Your task to perform on an android device: Add "macbook pro" to the cart on costco, then select checkout. Image 0: 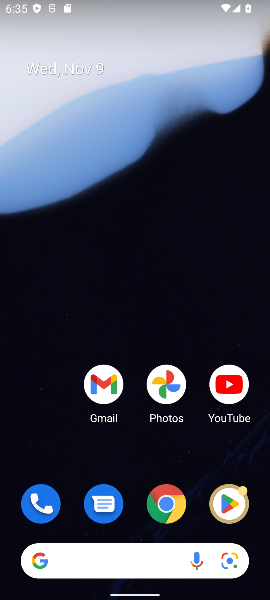
Step 0: click (177, 510)
Your task to perform on an android device: Add "macbook pro" to the cart on costco, then select checkout. Image 1: 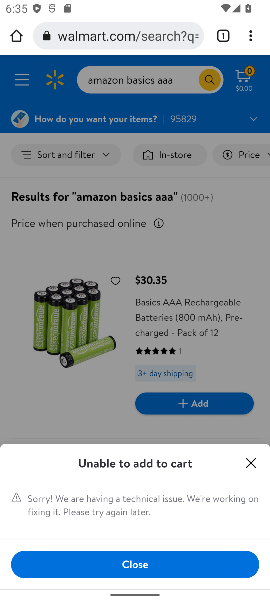
Step 1: click (128, 36)
Your task to perform on an android device: Add "macbook pro" to the cart on costco, then select checkout. Image 2: 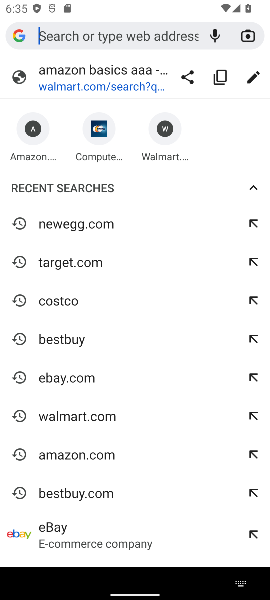
Step 2: type "costco"
Your task to perform on an android device: Add "macbook pro" to the cart on costco, then select checkout. Image 3: 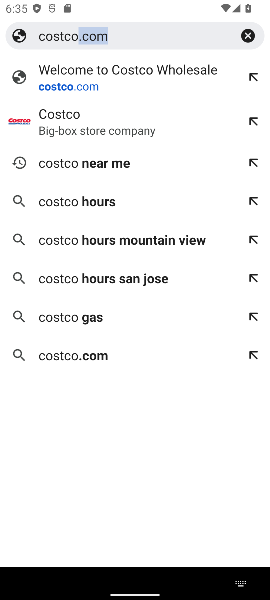
Step 3: click (144, 67)
Your task to perform on an android device: Add "macbook pro" to the cart on costco, then select checkout. Image 4: 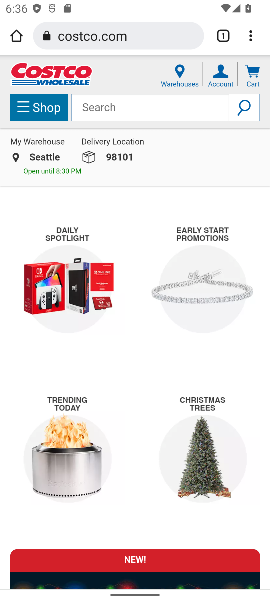
Step 4: click (158, 107)
Your task to perform on an android device: Add "macbook pro" to the cart on costco, then select checkout. Image 5: 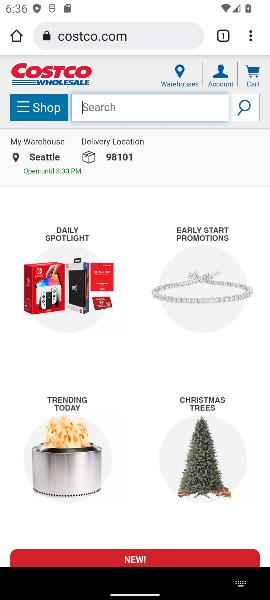
Step 5: type "macbook pro"
Your task to perform on an android device: Add "macbook pro" to the cart on costco, then select checkout. Image 6: 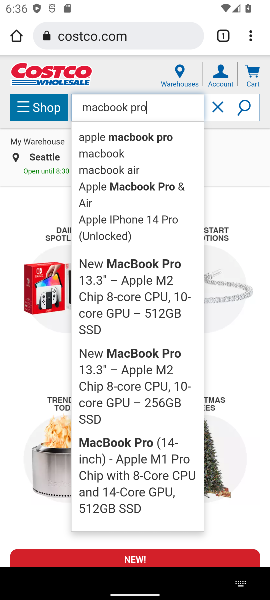
Step 6: press enter
Your task to perform on an android device: Add "macbook pro" to the cart on costco, then select checkout. Image 7: 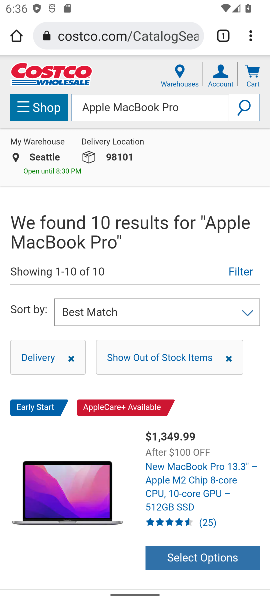
Step 7: click (187, 495)
Your task to perform on an android device: Add "macbook pro" to the cart on costco, then select checkout. Image 8: 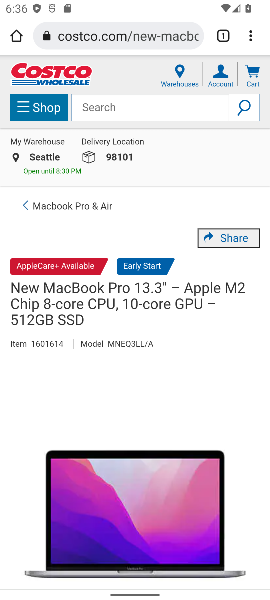
Step 8: drag from (149, 440) to (81, 148)
Your task to perform on an android device: Add "macbook pro" to the cart on costco, then select checkout. Image 9: 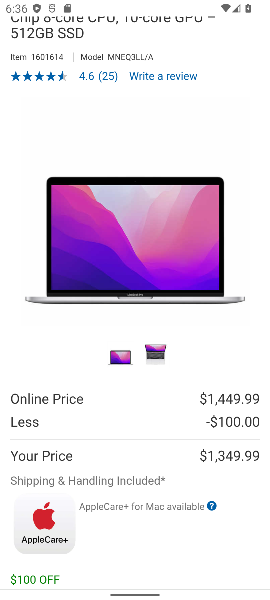
Step 9: drag from (133, 540) to (67, 332)
Your task to perform on an android device: Add "macbook pro" to the cart on costco, then select checkout. Image 10: 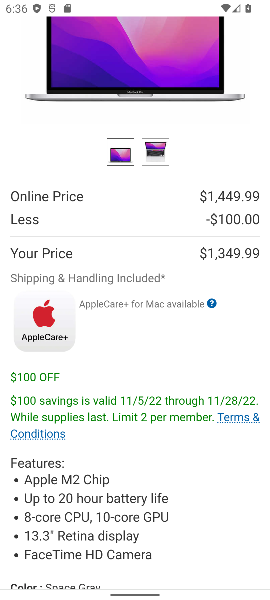
Step 10: drag from (138, 458) to (135, 5)
Your task to perform on an android device: Add "macbook pro" to the cart on costco, then select checkout. Image 11: 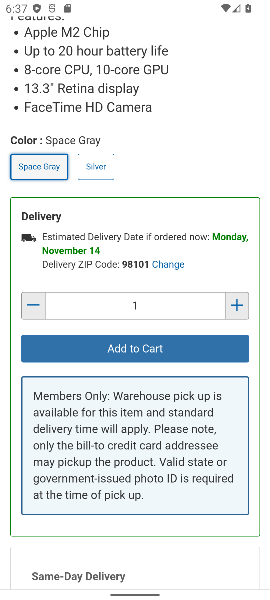
Step 11: click (135, 359)
Your task to perform on an android device: Add "macbook pro" to the cart on costco, then select checkout. Image 12: 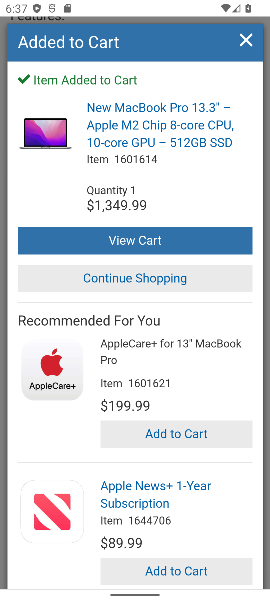
Step 12: click (126, 238)
Your task to perform on an android device: Add "macbook pro" to the cart on costco, then select checkout. Image 13: 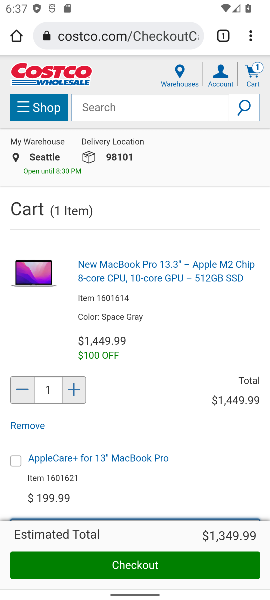
Step 13: task complete